Your task to perform on an android device: What's on my calendar today? Image 0: 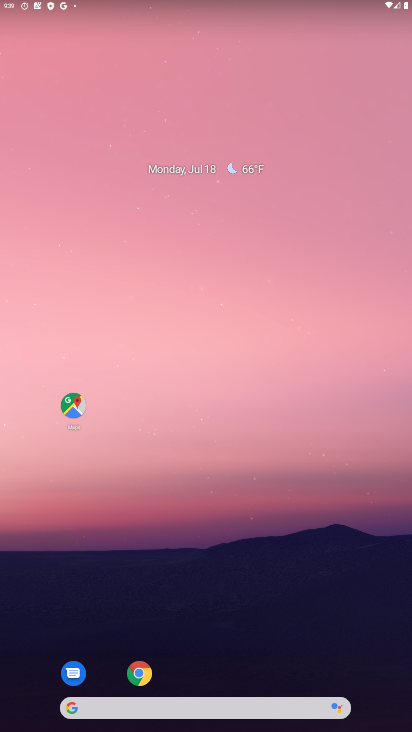
Step 0: drag from (222, 681) to (245, 134)
Your task to perform on an android device: What's on my calendar today? Image 1: 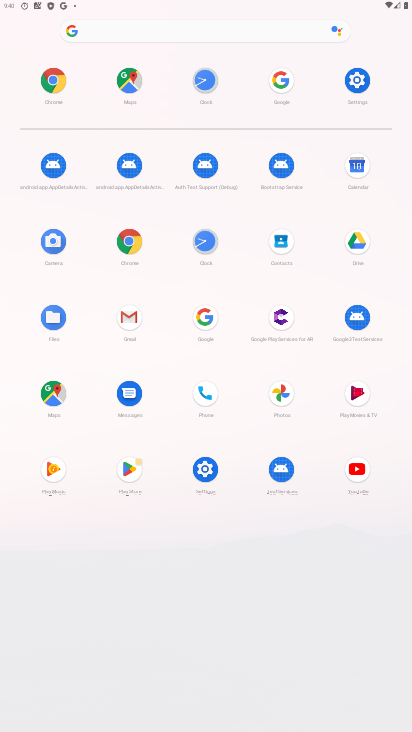
Step 1: click (359, 165)
Your task to perform on an android device: What's on my calendar today? Image 2: 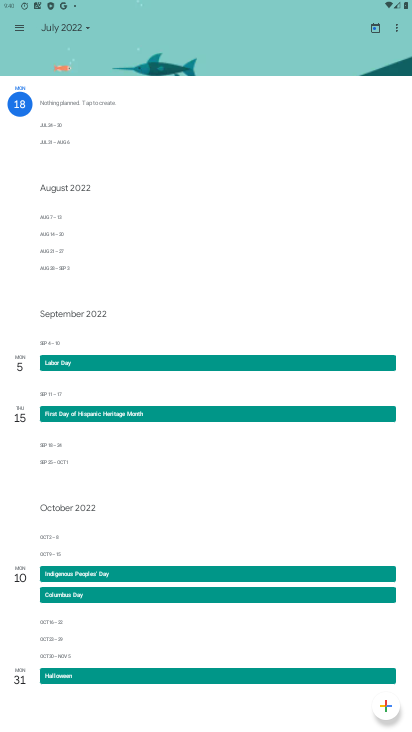
Step 2: click (70, 25)
Your task to perform on an android device: What's on my calendar today? Image 3: 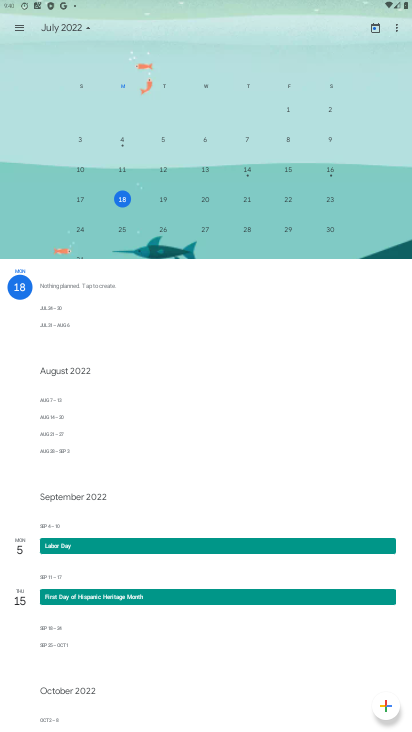
Step 3: task complete